Your task to perform on an android device: Open Android settings Image 0: 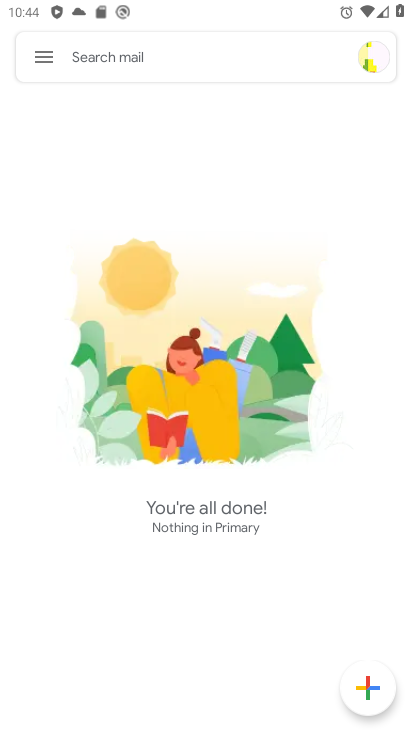
Step 0: press home button
Your task to perform on an android device: Open Android settings Image 1: 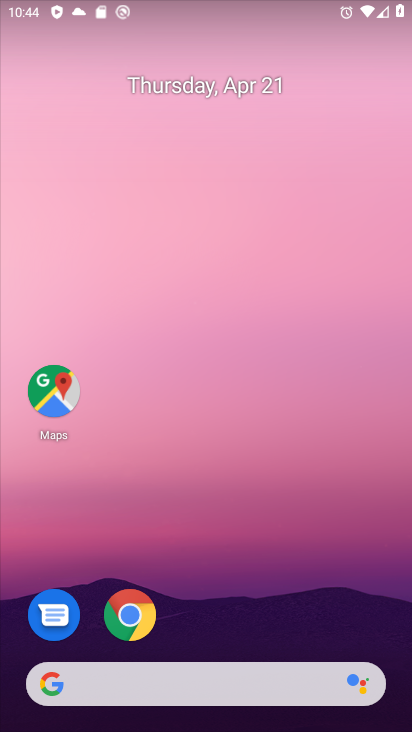
Step 1: drag from (223, 625) to (283, 118)
Your task to perform on an android device: Open Android settings Image 2: 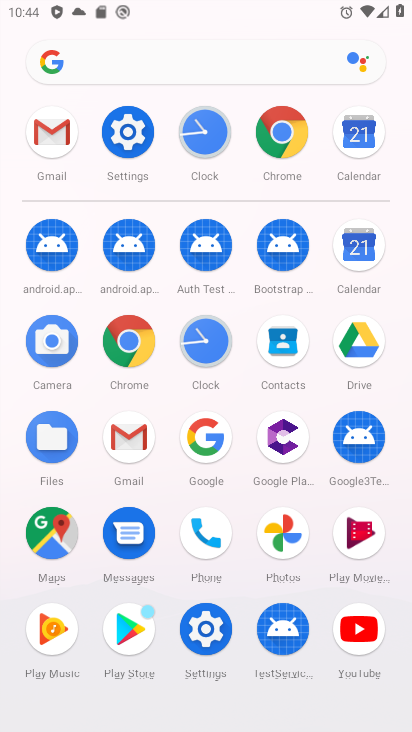
Step 2: click (196, 630)
Your task to perform on an android device: Open Android settings Image 3: 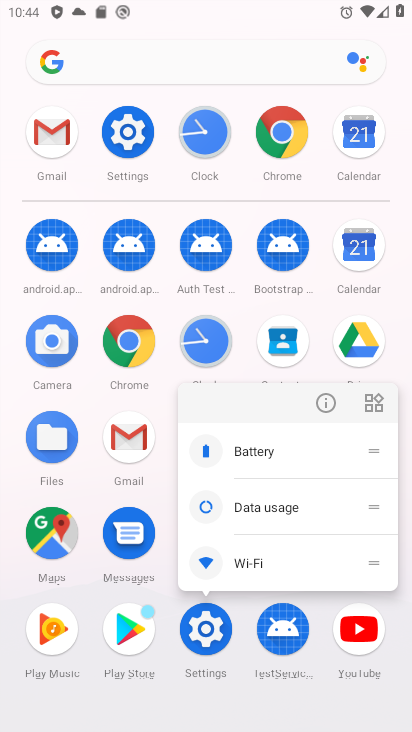
Step 3: click (200, 634)
Your task to perform on an android device: Open Android settings Image 4: 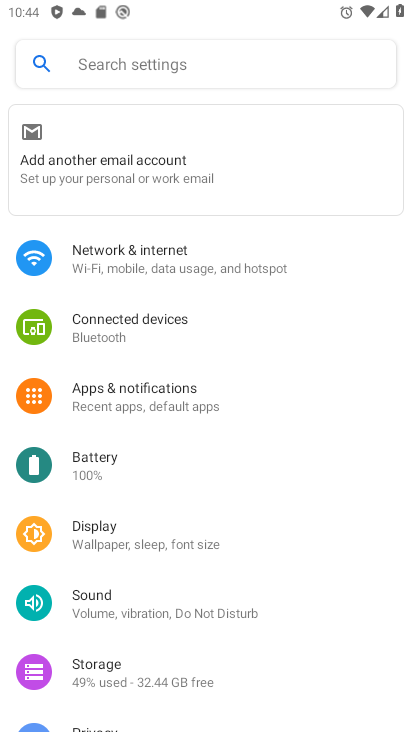
Step 4: drag from (166, 648) to (262, 304)
Your task to perform on an android device: Open Android settings Image 5: 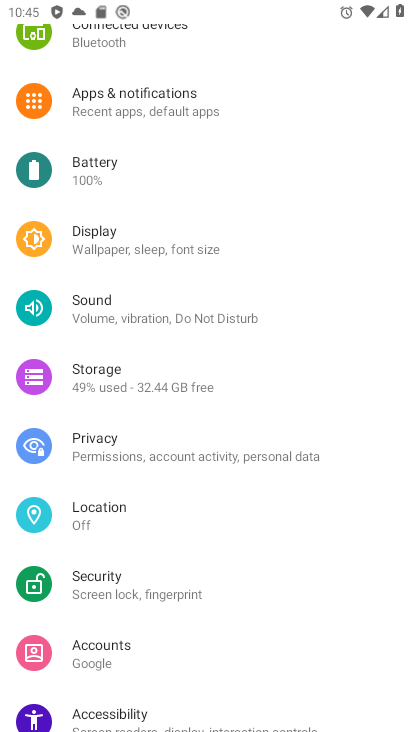
Step 5: drag from (186, 660) to (225, 135)
Your task to perform on an android device: Open Android settings Image 6: 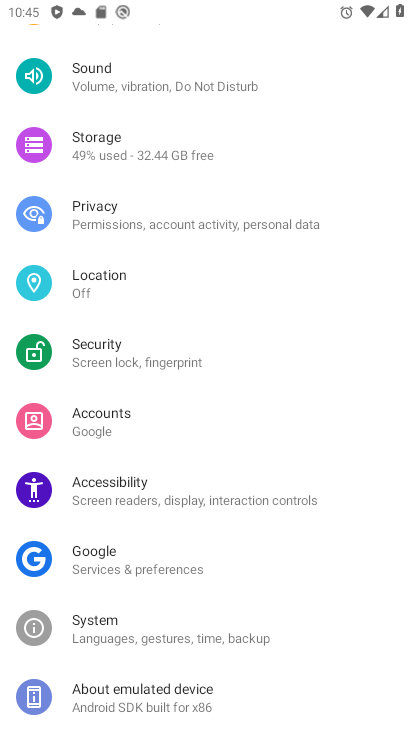
Step 6: click (202, 691)
Your task to perform on an android device: Open Android settings Image 7: 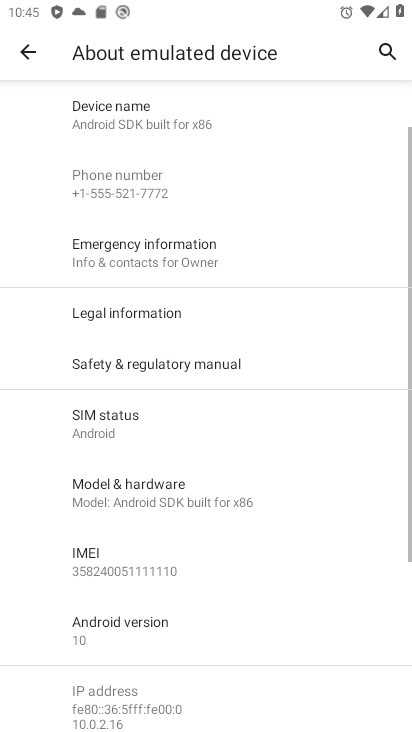
Step 7: drag from (172, 537) to (184, 413)
Your task to perform on an android device: Open Android settings Image 8: 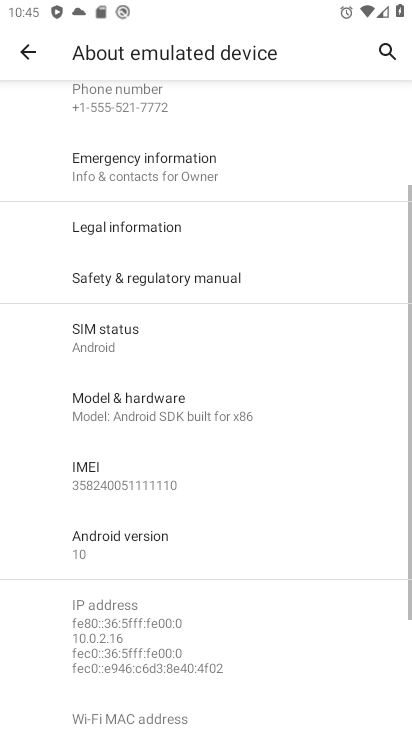
Step 8: click (136, 552)
Your task to perform on an android device: Open Android settings Image 9: 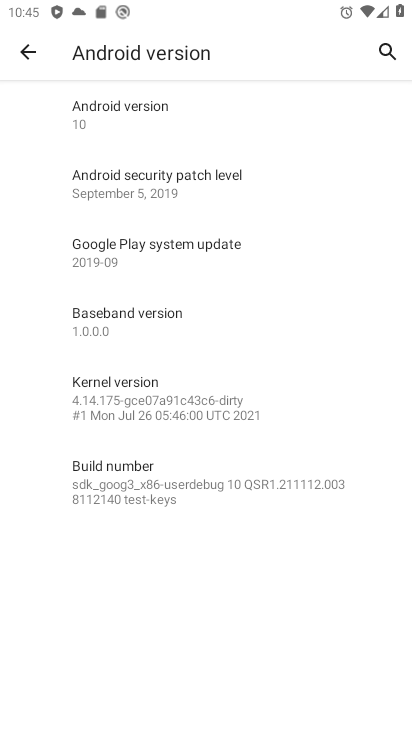
Step 9: task complete